Your task to perform on an android device: Go to calendar. Show me events next week Image 0: 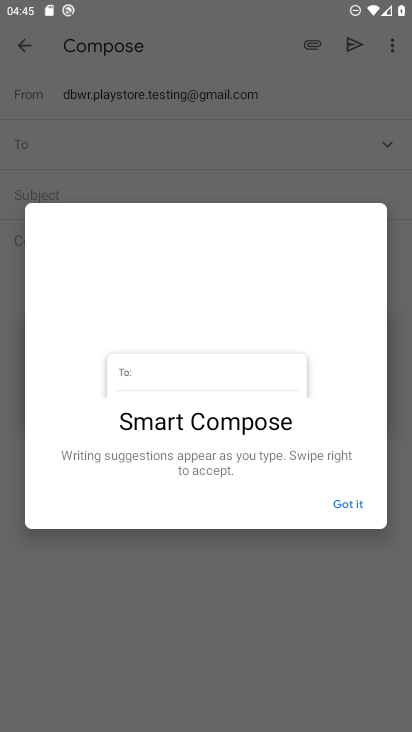
Step 0: press home button
Your task to perform on an android device: Go to calendar. Show me events next week Image 1: 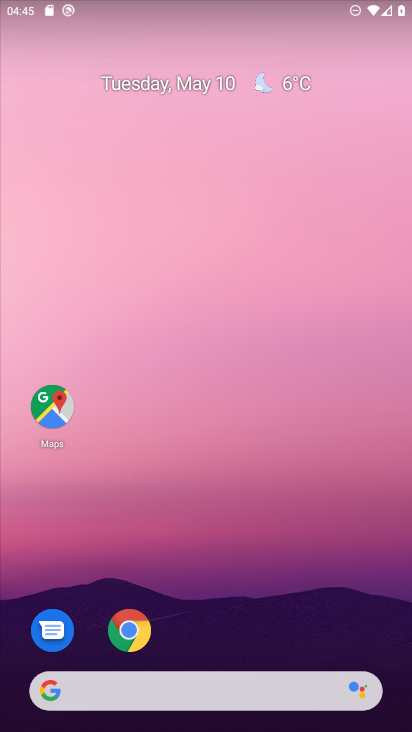
Step 1: click (157, 77)
Your task to perform on an android device: Go to calendar. Show me events next week Image 2: 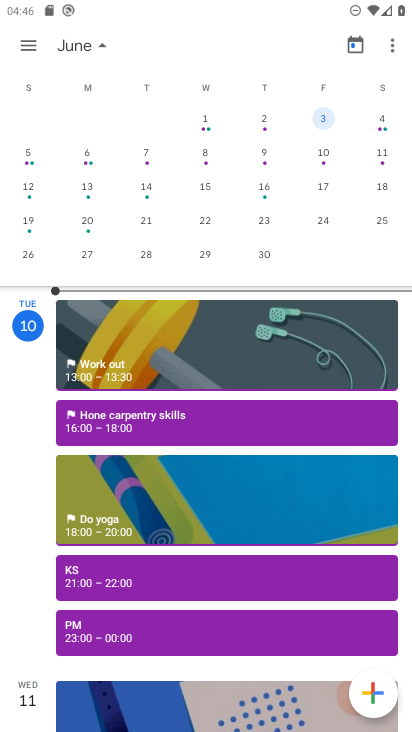
Step 2: drag from (47, 250) to (410, 535)
Your task to perform on an android device: Go to calendar. Show me events next week Image 3: 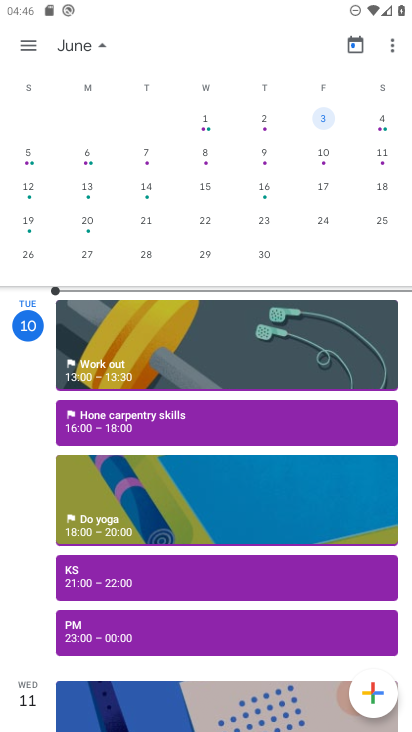
Step 3: drag from (78, 218) to (380, 452)
Your task to perform on an android device: Go to calendar. Show me events next week Image 4: 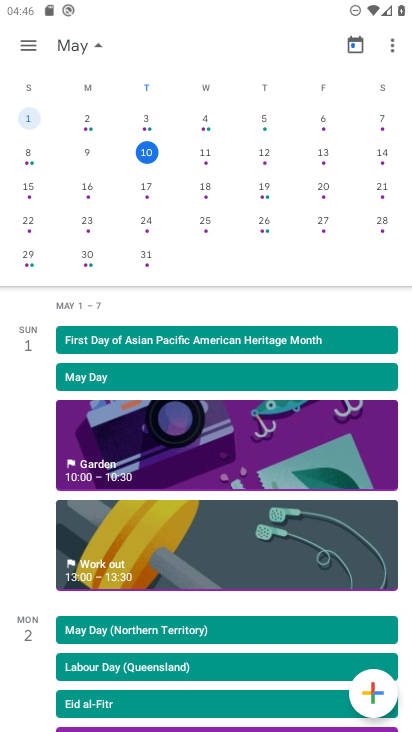
Step 4: drag from (45, 229) to (279, 117)
Your task to perform on an android device: Go to calendar. Show me events next week Image 5: 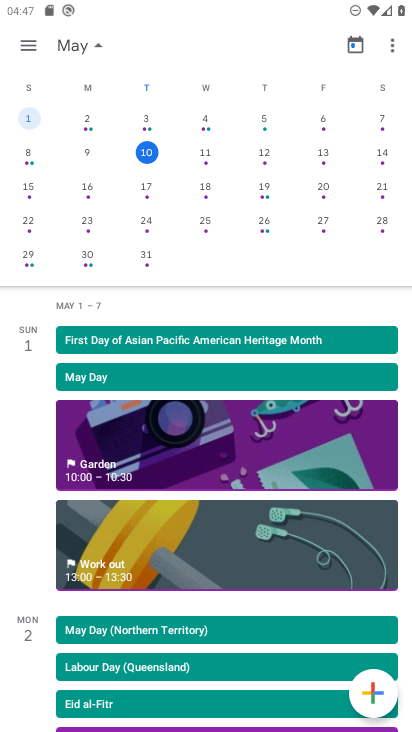
Step 5: click (186, 186)
Your task to perform on an android device: Go to calendar. Show me events next week Image 6: 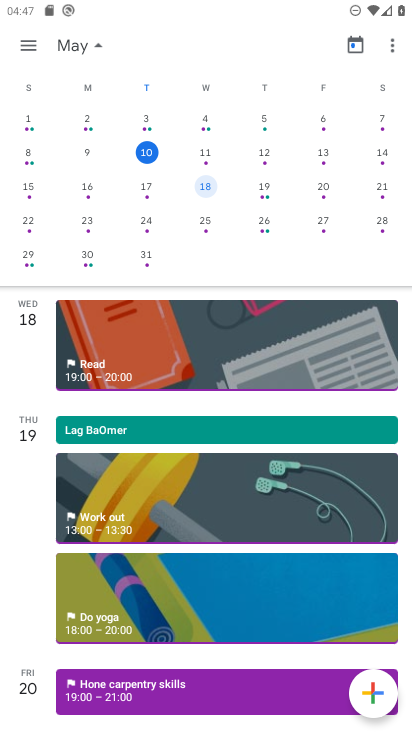
Step 6: task complete